Your task to perform on an android device: Open ESPN.com Image 0: 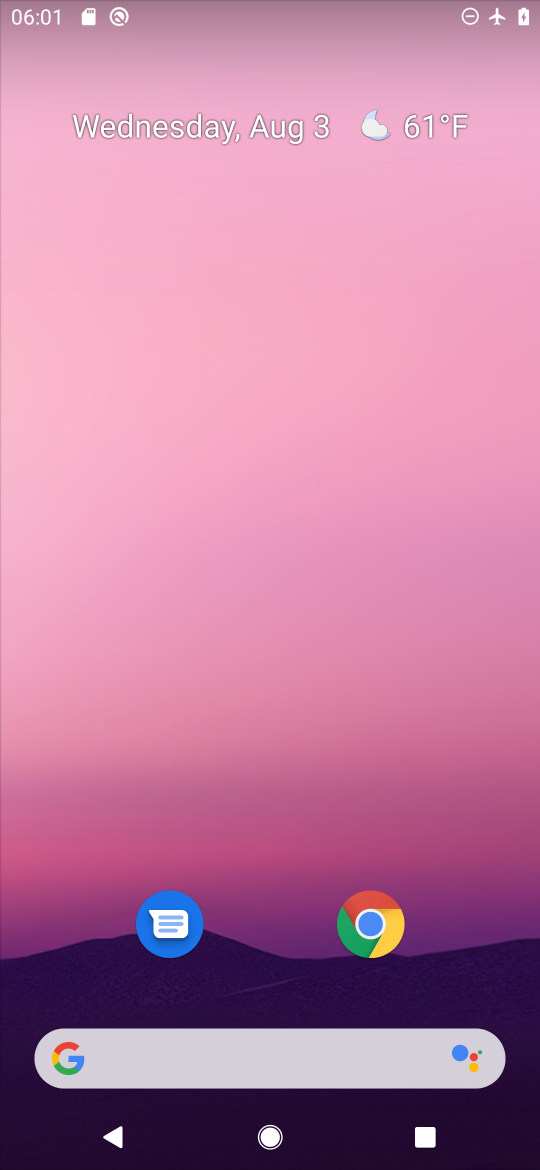
Step 0: click (342, 909)
Your task to perform on an android device: Open ESPN.com Image 1: 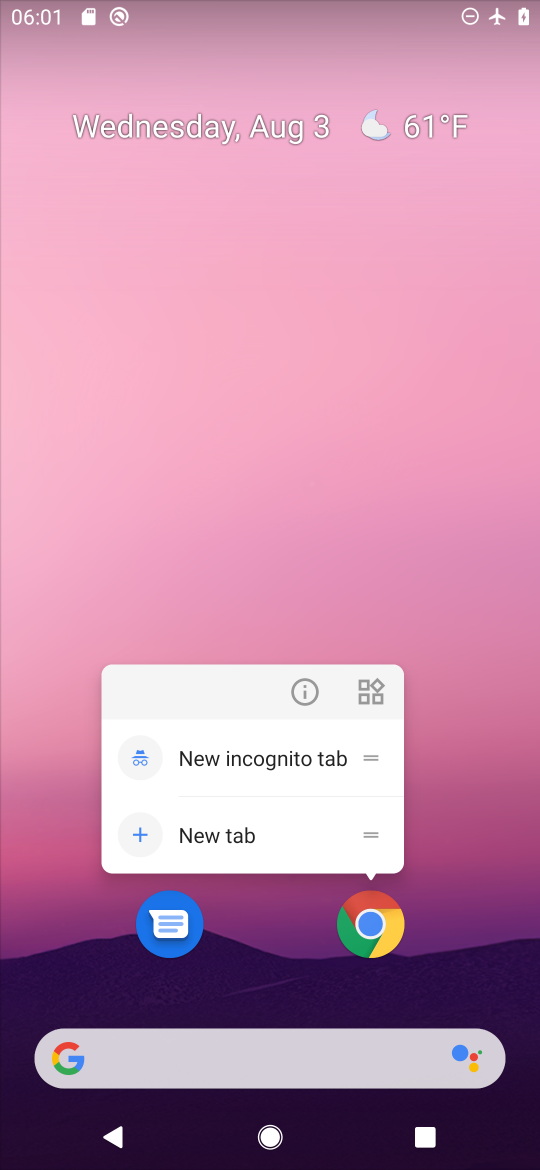
Step 1: click (344, 909)
Your task to perform on an android device: Open ESPN.com Image 2: 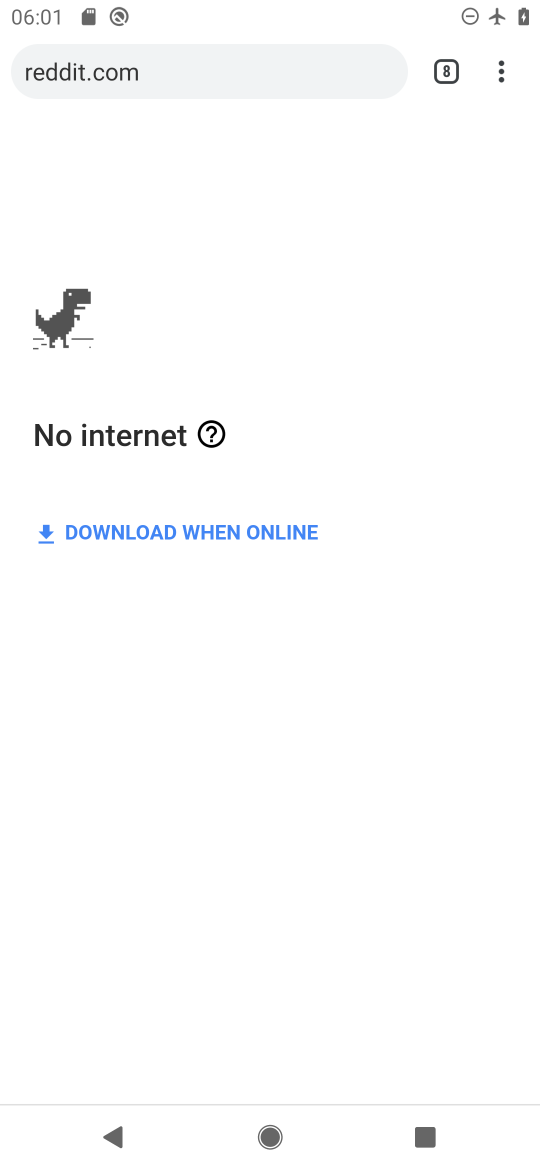
Step 2: click (445, 66)
Your task to perform on an android device: Open ESPN.com Image 3: 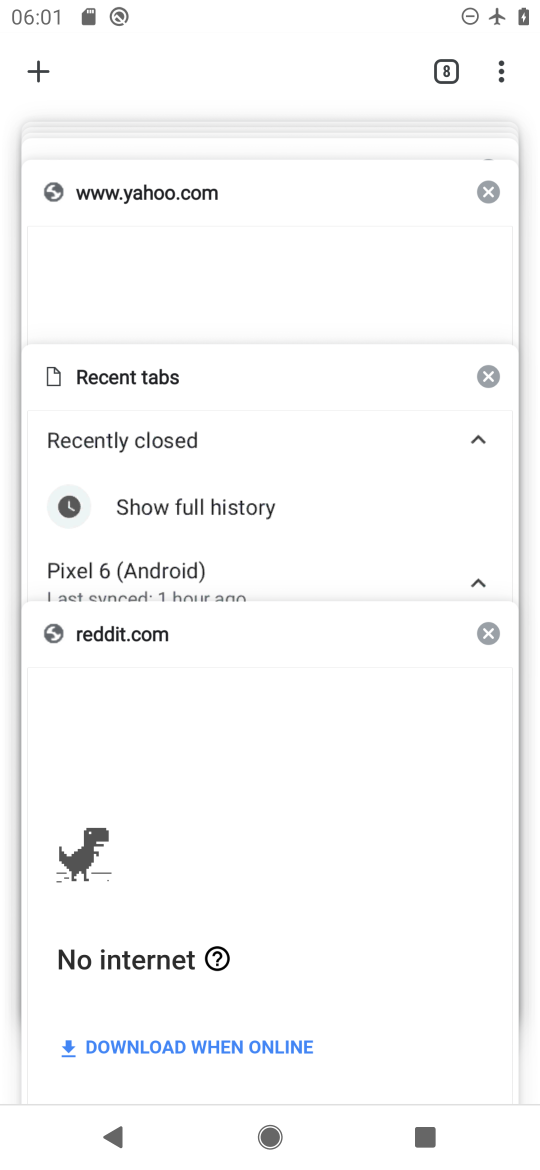
Step 3: click (17, 63)
Your task to perform on an android device: Open ESPN.com Image 4: 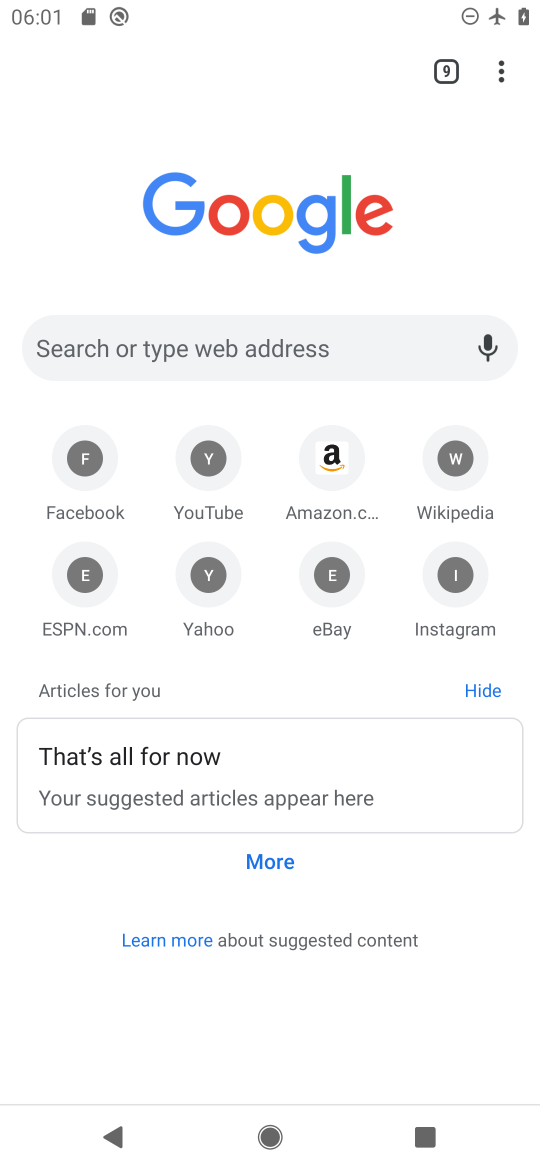
Step 4: click (246, 347)
Your task to perform on an android device: Open ESPN.com Image 5: 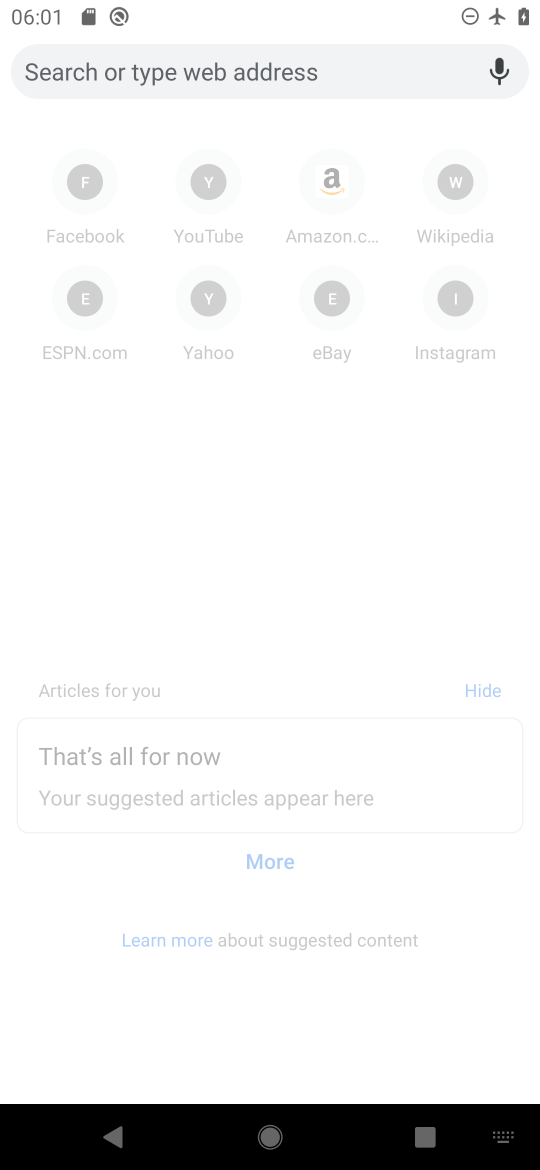
Step 5: type "ESPN.com"
Your task to perform on an android device: Open ESPN.com Image 6: 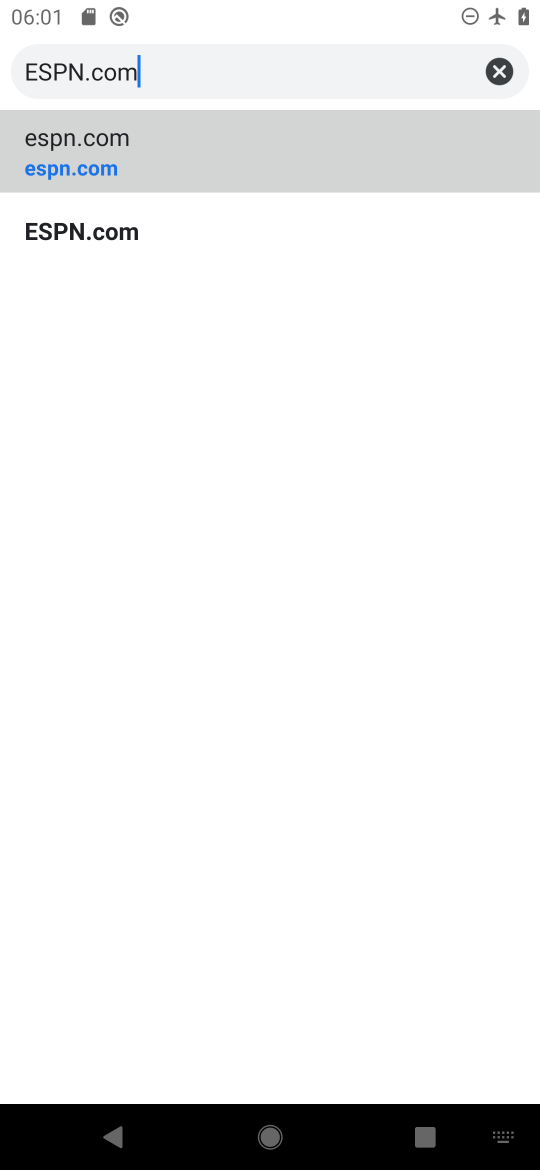
Step 6: type ""
Your task to perform on an android device: Open ESPN.com Image 7: 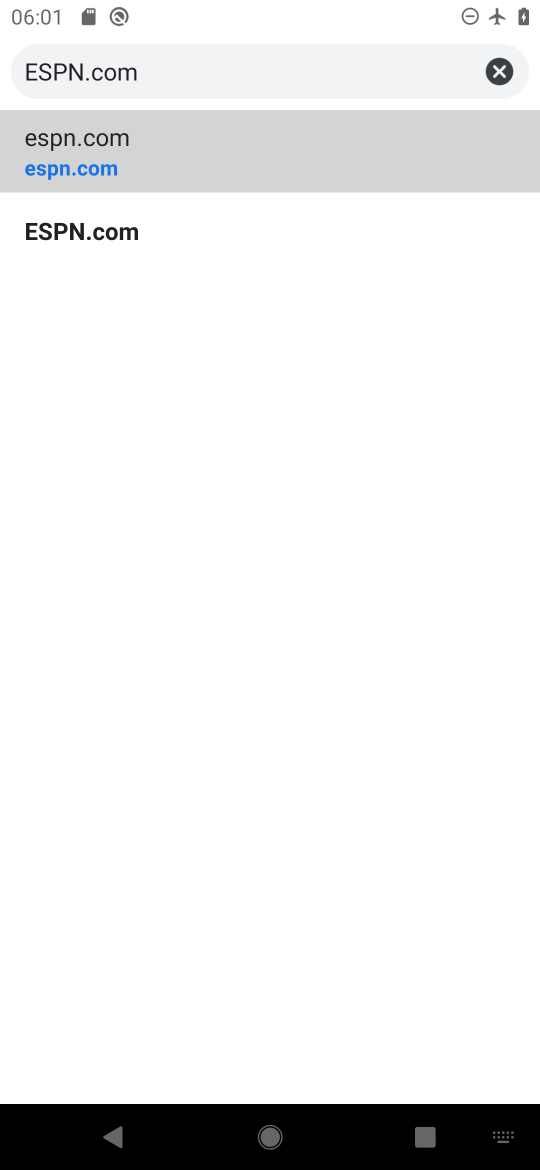
Step 7: task complete